Your task to perform on an android device: Open network settings Image 0: 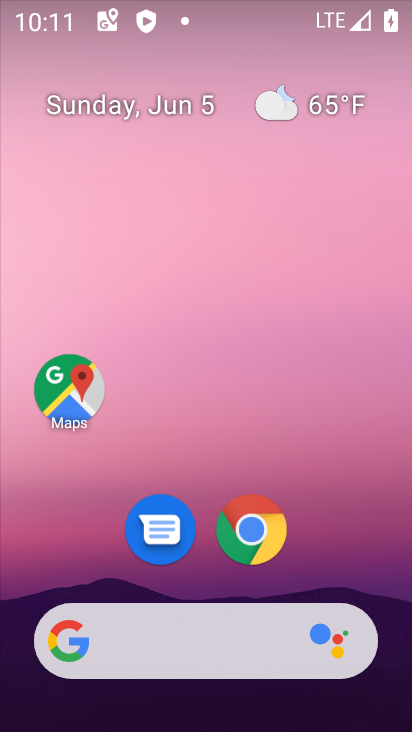
Step 0: click (399, 668)
Your task to perform on an android device: Open network settings Image 1: 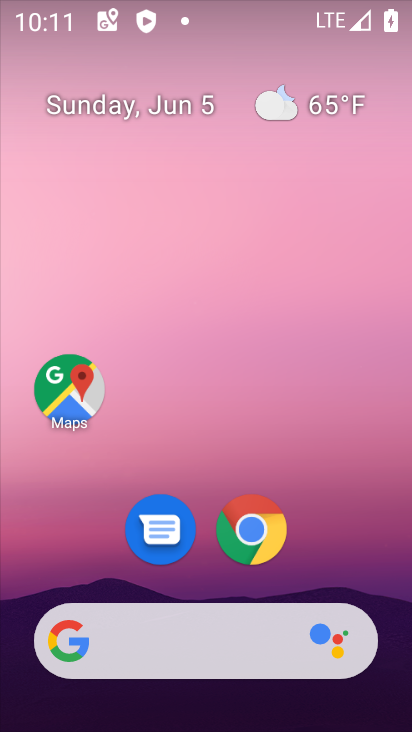
Step 1: drag from (349, 0) to (409, 419)
Your task to perform on an android device: Open network settings Image 2: 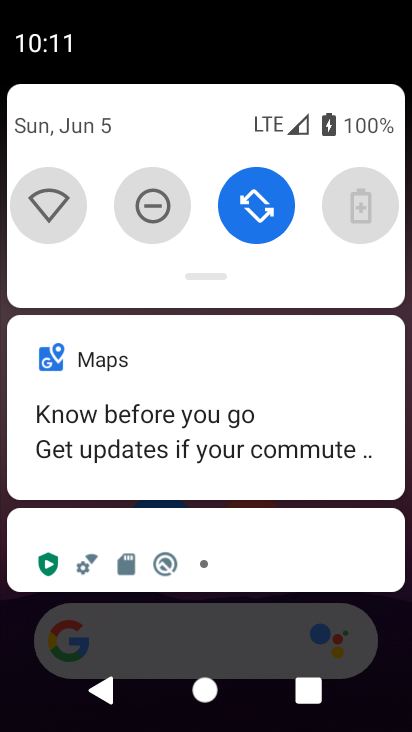
Step 2: press home button
Your task to perform on an android device: Open network settings Image 3: 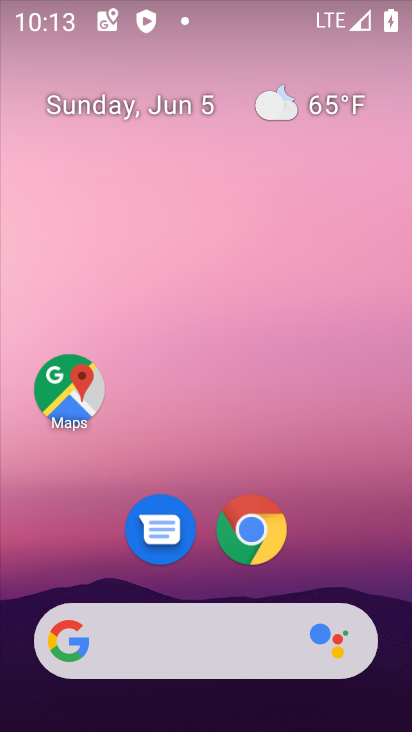
Step 3: drag from (280, 714) to (410, 354)
Your task to perform on an android device: Open network settings Image 4: 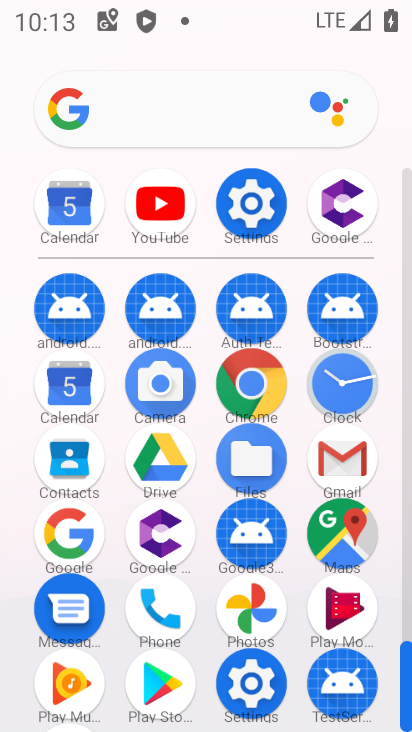
Step 4: click (248, 196)
Your task to perform on an android device: Open network settings Image 5: 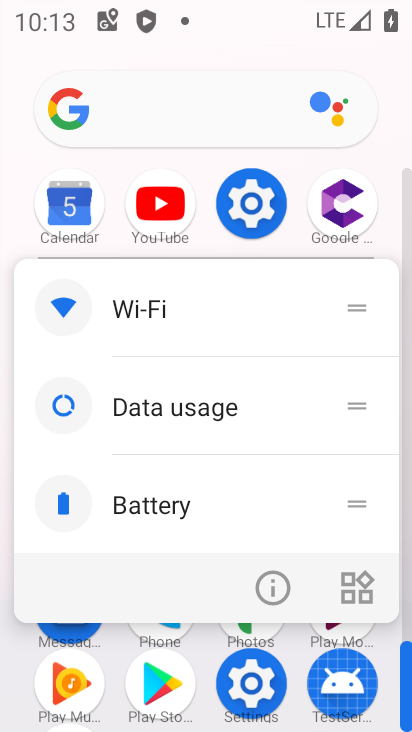
Step 5: click (251, 189)
Your task to perform on an android device: Open network settings Image 6: 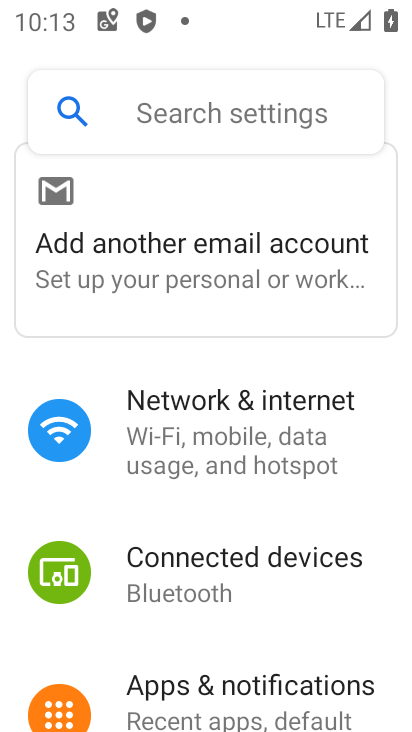
Step 6: click (288, 439)
Your task to perform on an android device: Open network settings Image 7: 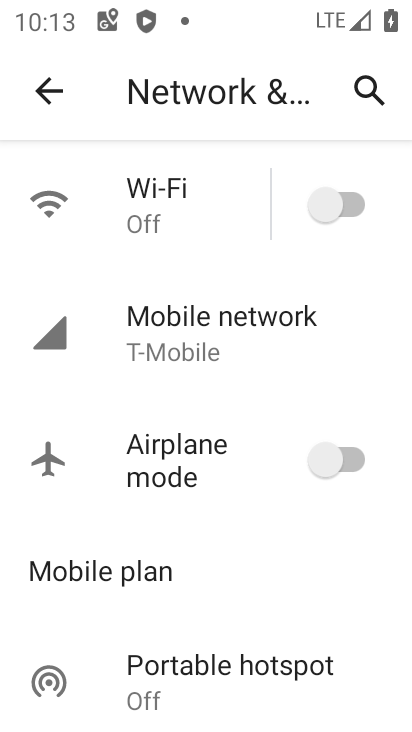
Step 7: task complete